Your task to perform on an android device: Go to internet settings Image 0: 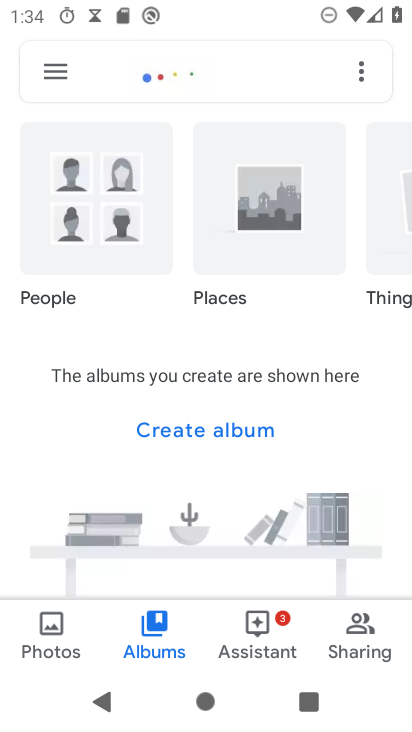
Step 0: press home button
Your task to perform on an android device: Go to internet settings Image 1: 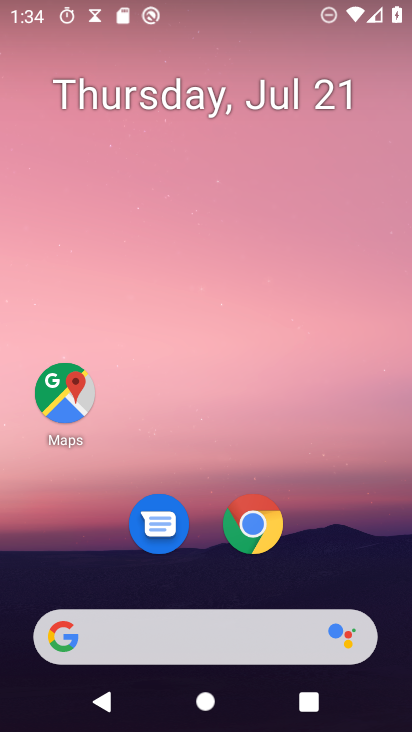
Step 1: drag from (169, 638) to (231, 114)
Your task to perform on an android device: Go to internet settings Image 2: 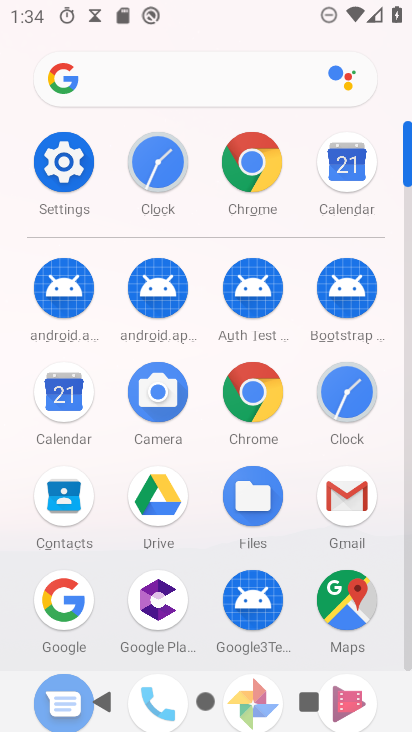
Step 2: click (56, 174)
Your task to perform on an android device: Go to internet settings Image 3: 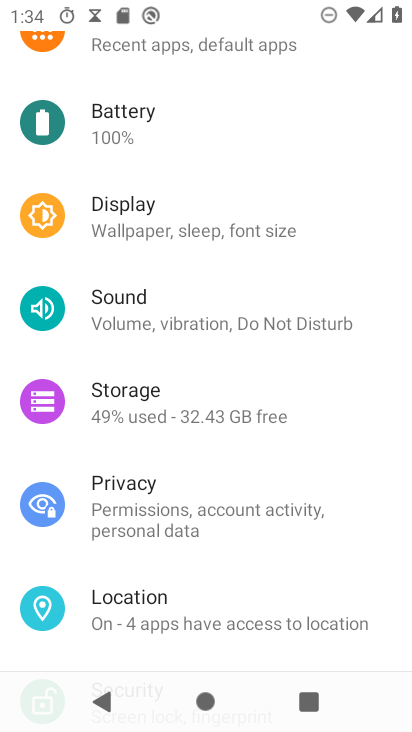
Step 3: drag from (332, 137) to (271, 636)
Your task to perform on an android device: Go to internet settings Image 4: 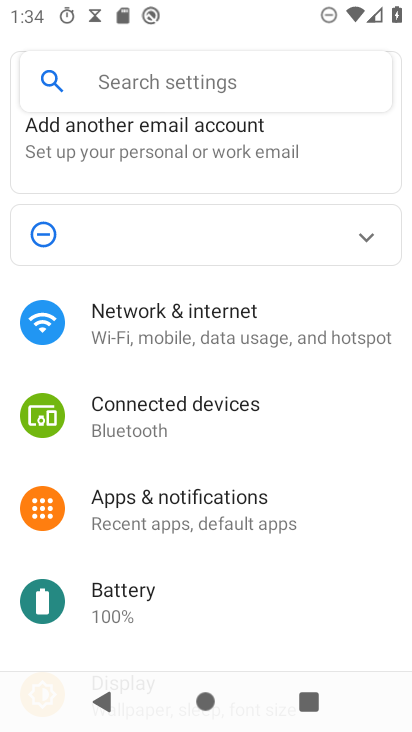
Step 4: click (177, 306)
Your task to perform on an android device: Go to internet settings Image 5: 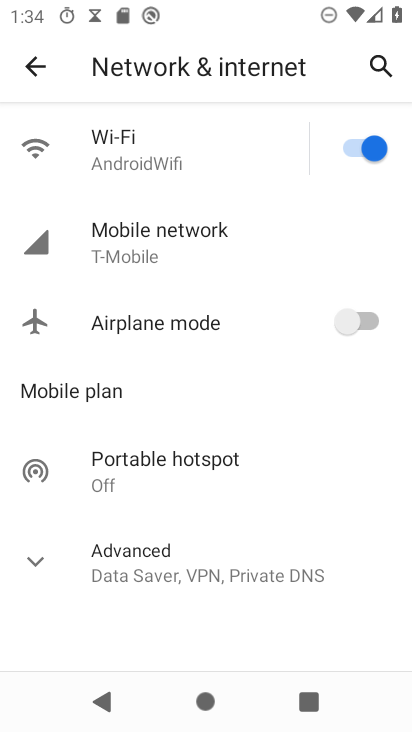
Step 5: task complete